Your task to perform on an android device: Search for "The Dispatcher" by John Scalzi on Goodreads Image 0: 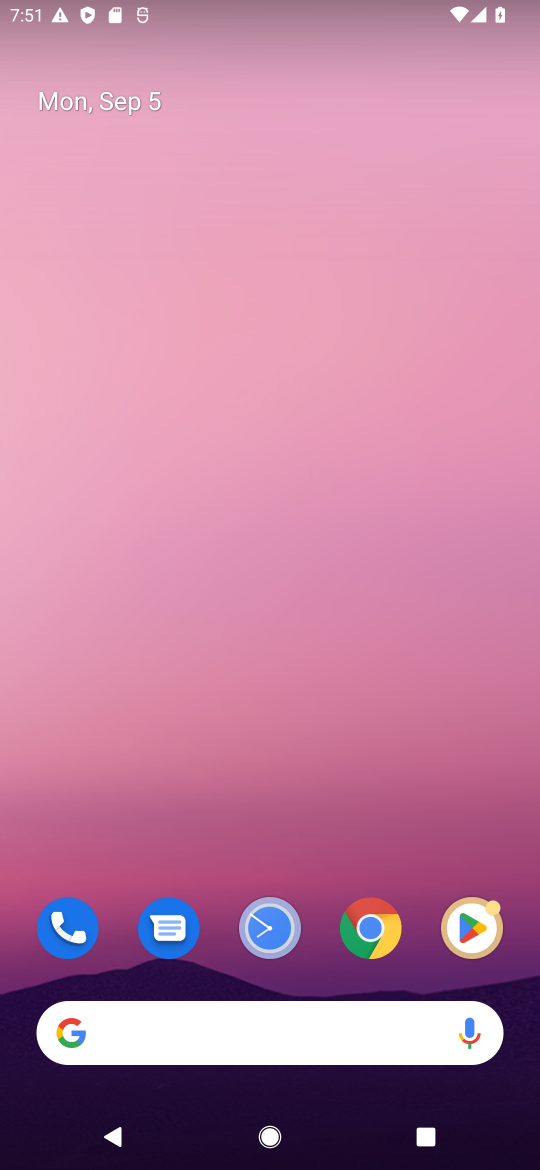
Step 0: click (365, 936)
Your task to perform on an android device: Search for "The Dispatcher" by John Scalzi on Goodreads Image 1: 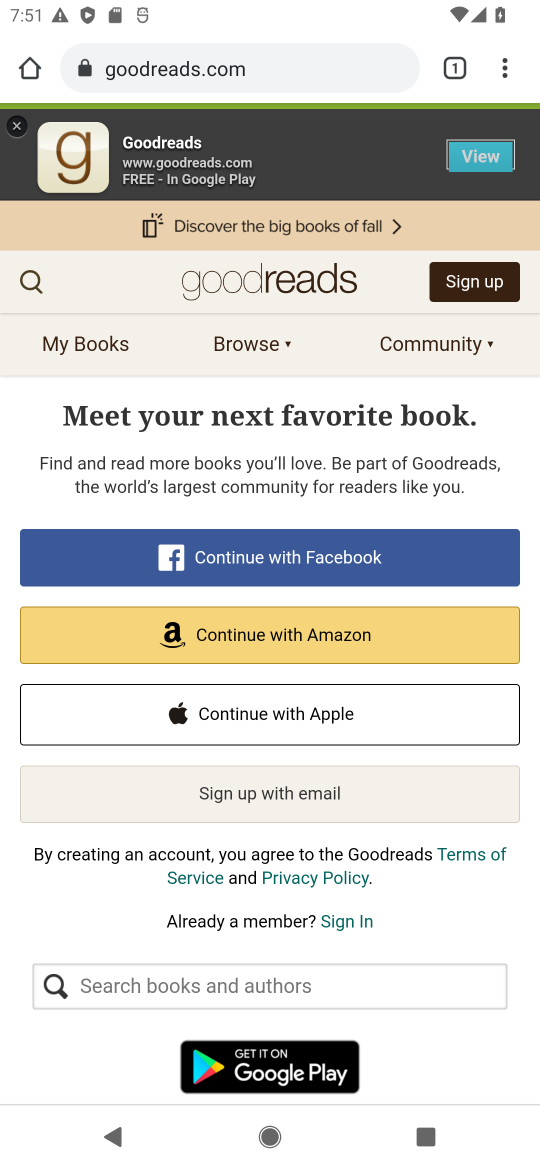
Step 1: click (96, 347)
Your task to perform on an android device: Search for "The Dispatcher" by John Scalzi on Goodreads Image 2: 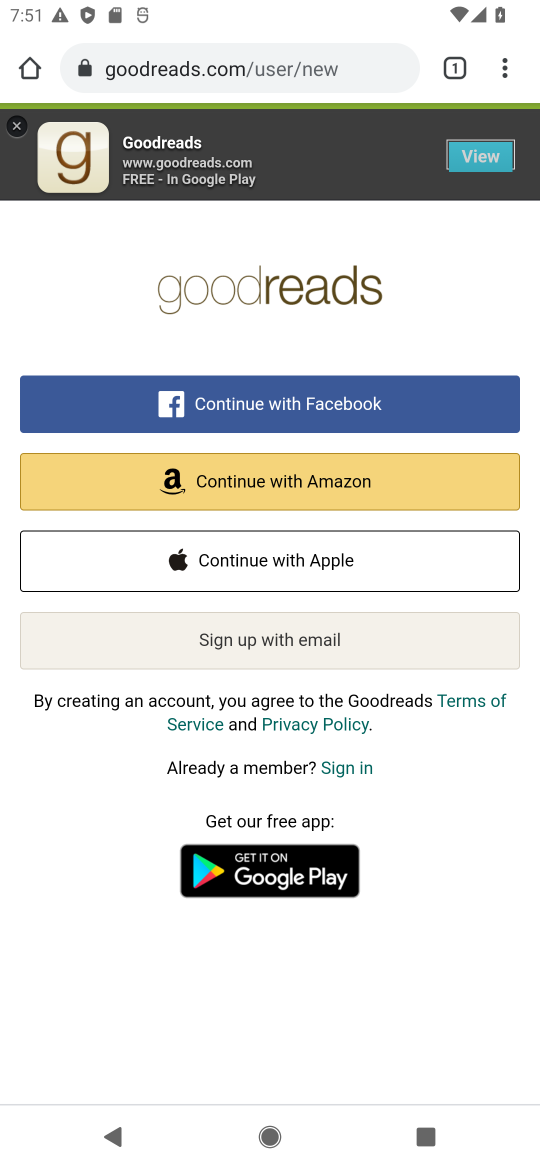
Step 2: click (480, 163)
Your task to perform on an android device: Search for "The Dispatcher" by John Scalzi on Goodreads Image 3: 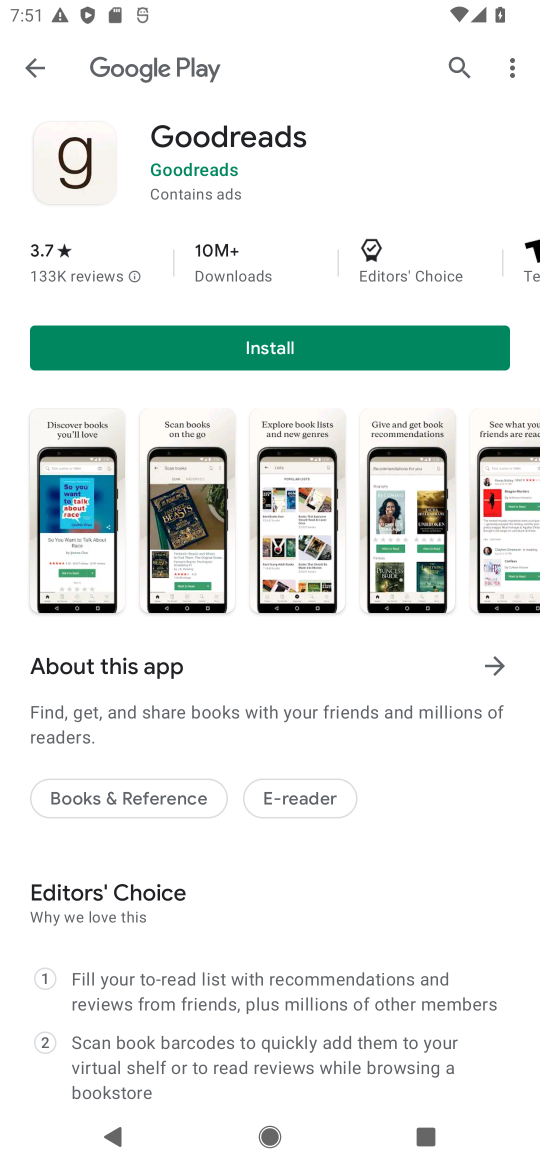
Step 3: task complete